Your task to perform on an android device: toggle show notifications on the lock screen Image 0: 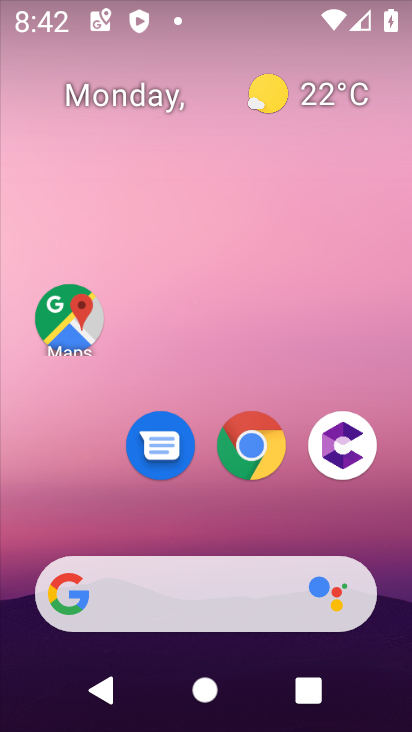
Step 0: drag from (205, 494) to (188, 217)
Your task to perform on an android device: toggle show notifications on the lock screen Image 1: 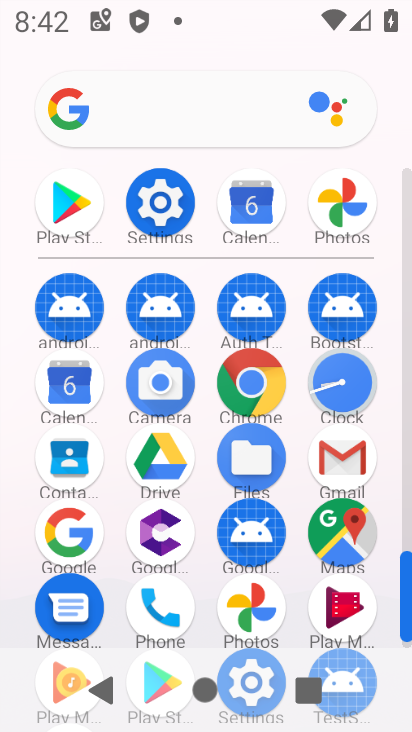
Step 1: click (180, 205)
Your task to perform on an android device: toggle show notifications on the lock screen Image 2: 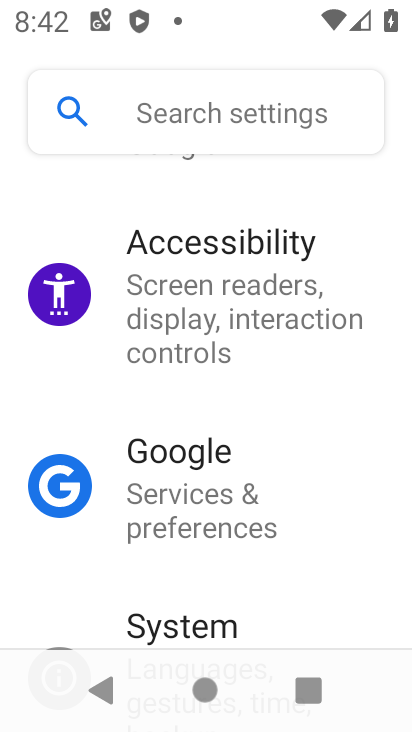
Step 2: drag from (61, 208) to (90, 662)
Your task to perform on an android device: toggle show notifications on the lock screen Image 3: 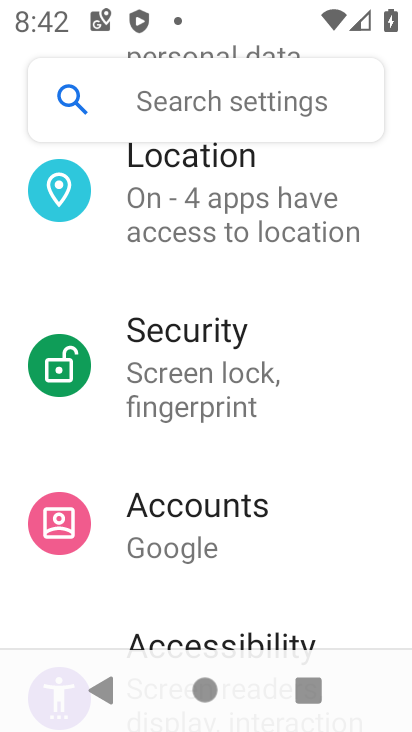
Step 3: drag from (81, 261) to (122, 604)
Your task to perform on an android device: toggle show notifications on the lock screen Image 4: 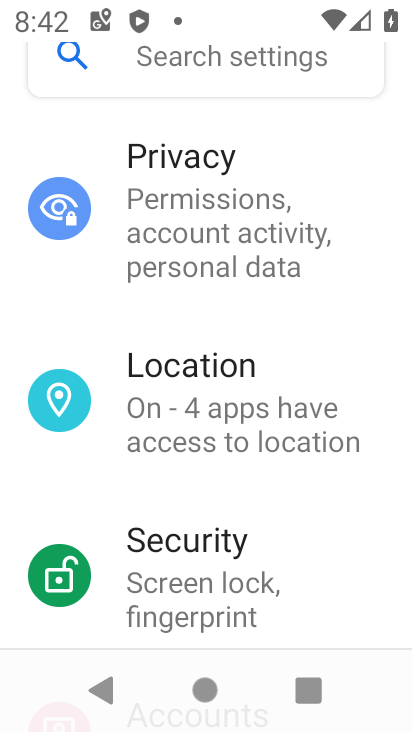
Step 4: drag from (63, 275) to (82, 650)
Your task to perform on an android device: toggle show notifications on the lock screen Image 5: 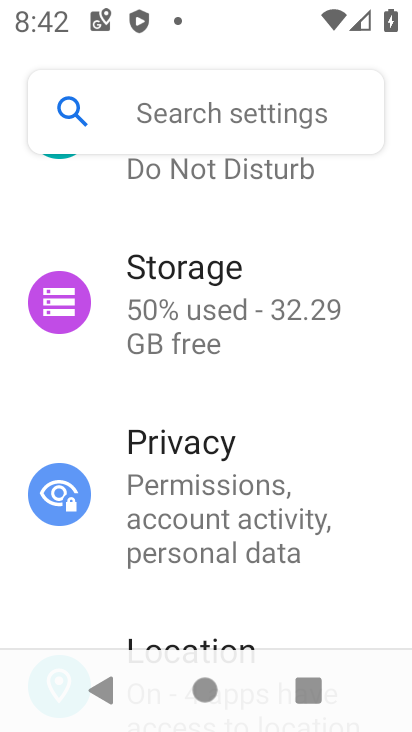
Step 5: drag from (70, 217) to (95, 559)
Your task to perform on an android device: toggle show notifications on the lock screen Image 6: 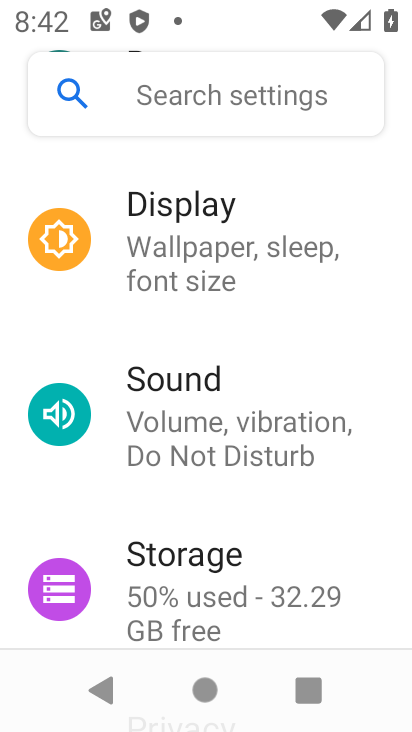
Step 6: drag from (76, 316) to (118, 636)
Your task to perform on an android device: toggle show notifications on the lock screen Image 7: 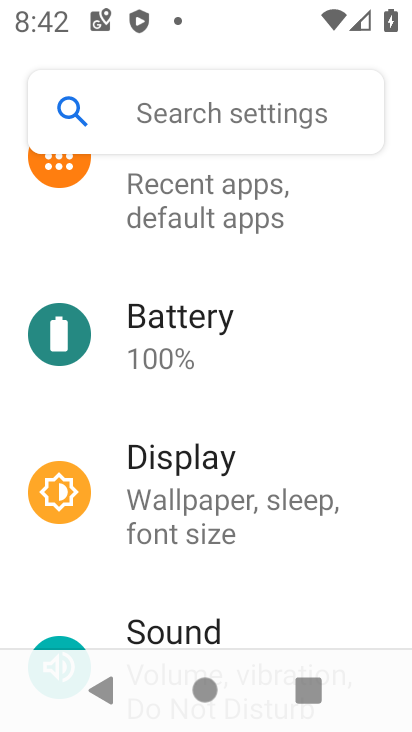
Step 7: drag from (68, 234) to (137, 613)
Your task to perform on an android device: toggle show notifications on the lock screen Image 8: 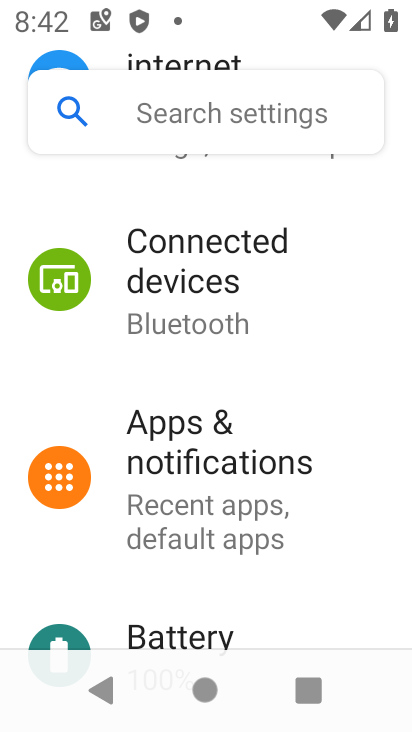
Step 8: click (164, 467)
Your task to perform on an android device: toggle show notifications on the lock screen Image 9: 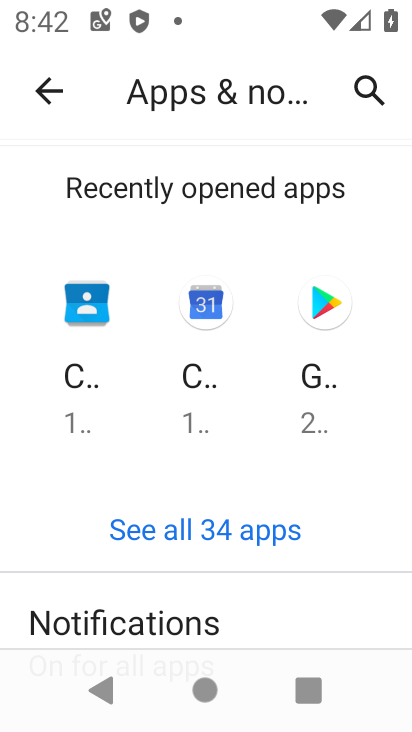
Step 9: drag from (321, 596) to (295, 277)
Your task to perform on an android device: toggle show notifications on the lock screen Image 10: 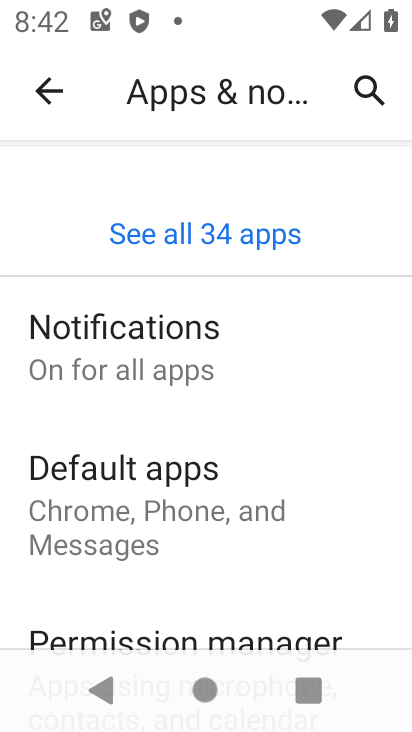
Step 10: drag from (341, 560) to (322, 482)
Your task to perform on an android device: toggle show notifications on the lock screen Image 11: 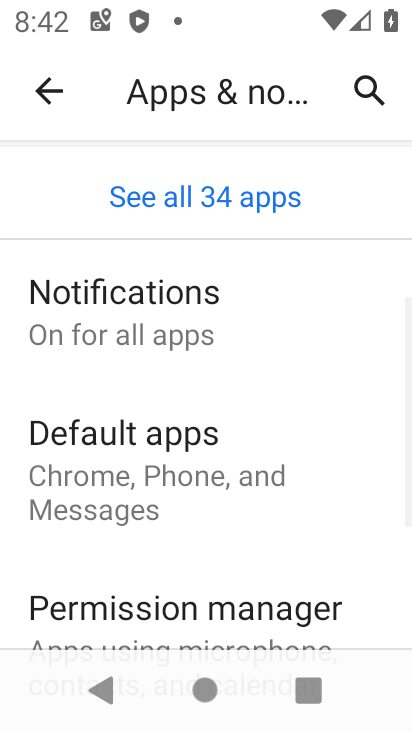
Step 11: click (189, 332)
Your task to perform on an android device: toggle show notifications on the lock screen Image 12: 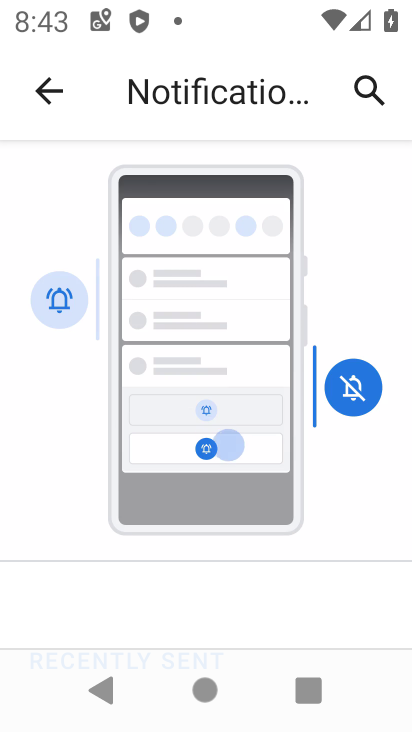
Step 12: drag from (351, 554) to (337, 232)
Your task to perform on an android device: toggle show notifications on the lock screen Image 13: 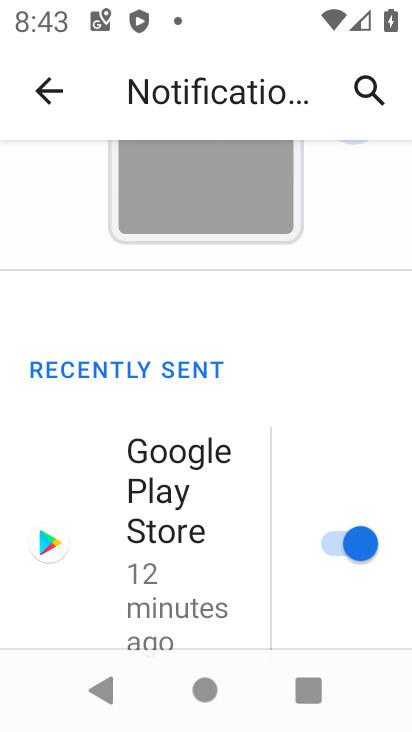
Step 13: drag from (277, 620) to (295, 281)
Your task to perform on an android device: toggle show notifications on the lock screen Image 14: 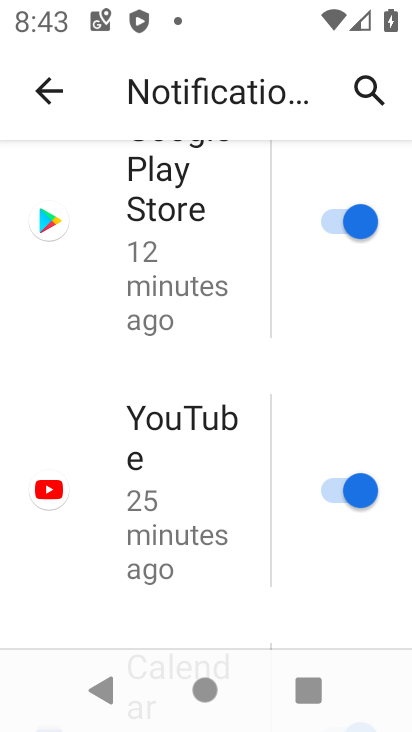
Step 14: drag from (289, 587) to (303, 184)
Your task to perform on an android device: toggle show notifications on the lock screen Image 15: 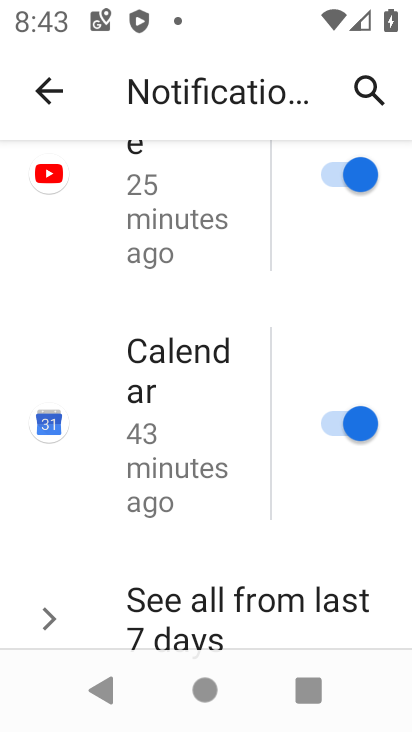
Step 15: drag from (262, 569) to (288, 250)
Your task to perform on an android device: toggle show notifications on the lock screen Image 16: 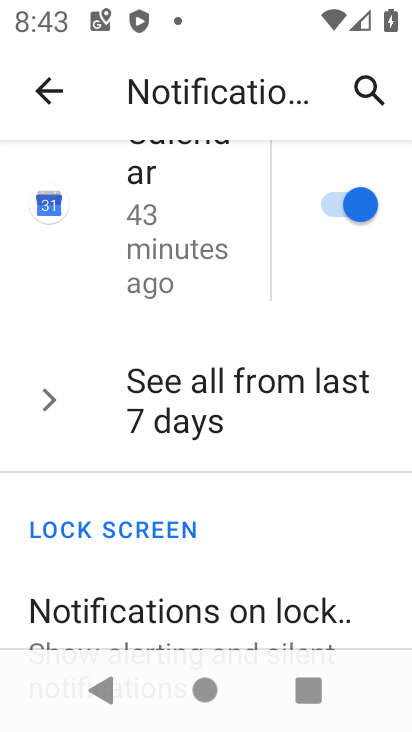
Step 16: drag from (259, 571) to (269, 338)
Your task to perform on an android device: toggle show notifications on the lock screen Image 17: 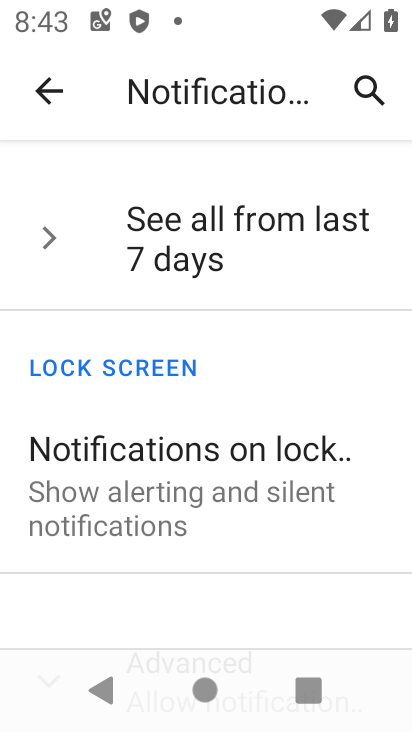
Step 17: click (184, 489)
Your task to perform on an android device: toggle show notifications on the lock screen Image 18: 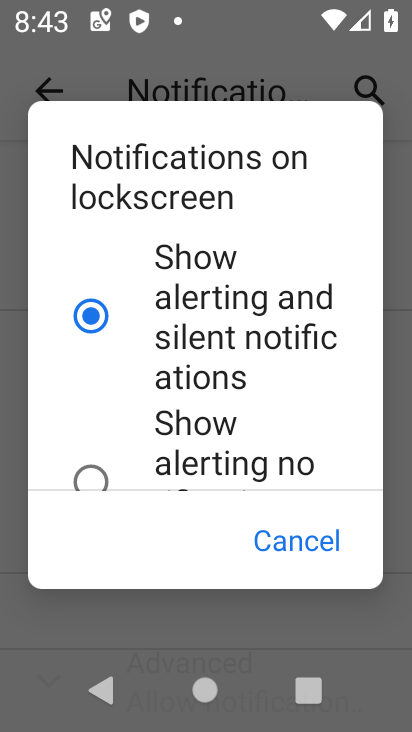
Step 18: drag from (96, 424) to (109, 264)
Your task to perform on an android device: toggle show notifications on the lock screen Image 19: 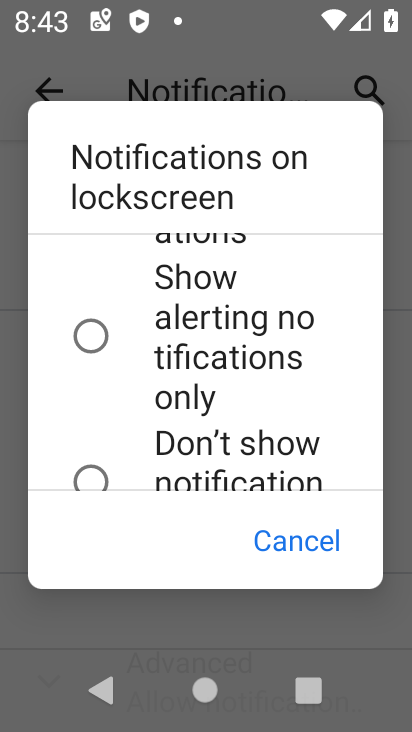
Step 19: click (94, 479)
Your task to perform on an android device: toggle show notifications on the lock screen Image 20: 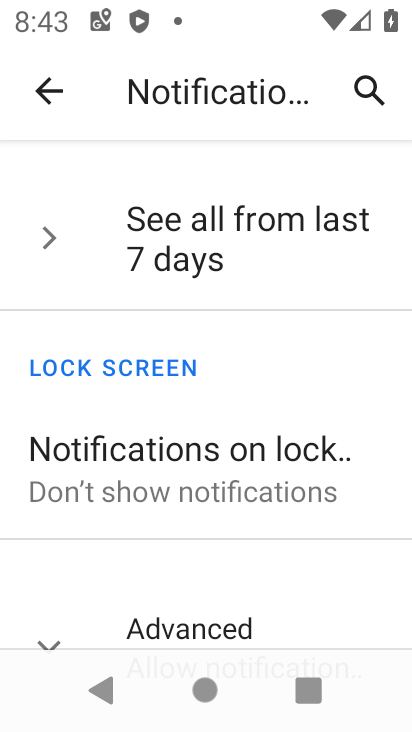
Step 20: task complete